Your task to perform on an android device: Go to display settings Image 0: 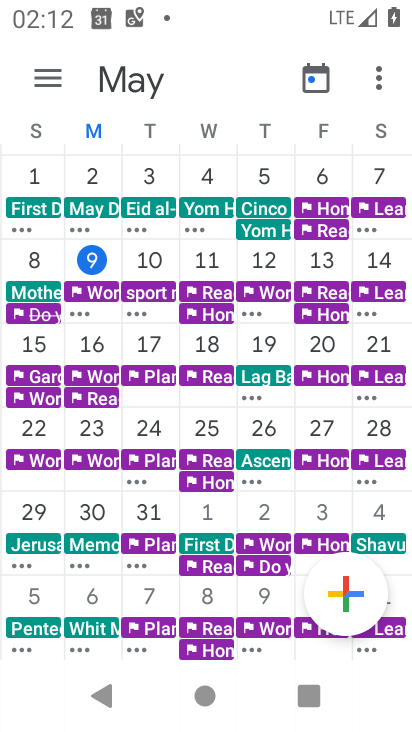
Step 0: press home button
Your task to perform on an android device: Go to display settings Image 1: 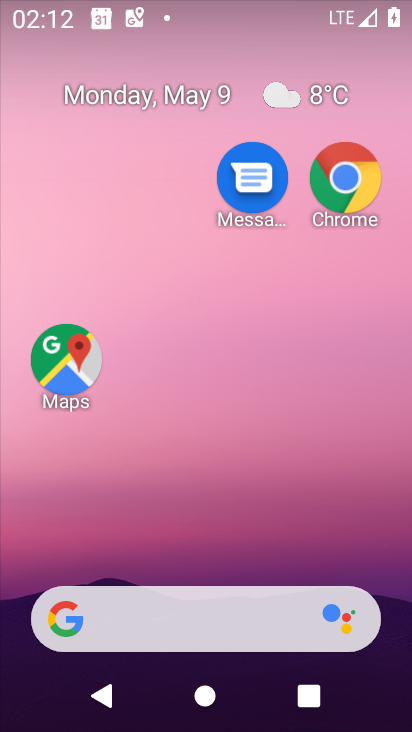
Step 1: drag from (232, 530) to (225, 70)
Your task to perform on an android device: Go to display settings Image 2: 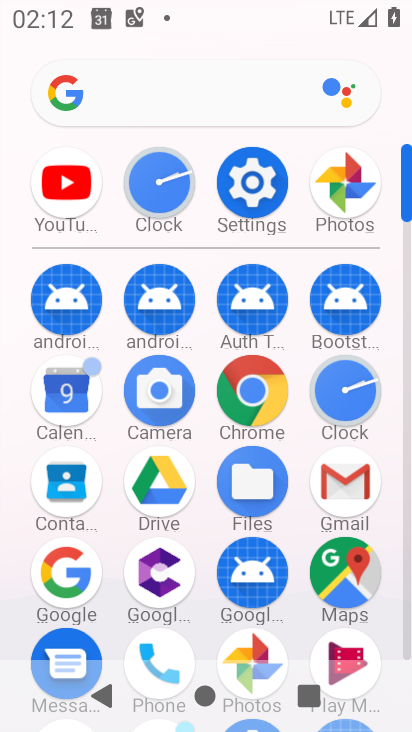
Step 2: click (273, 181)
Your task to perform on an android device: Go to display settings Image 3: 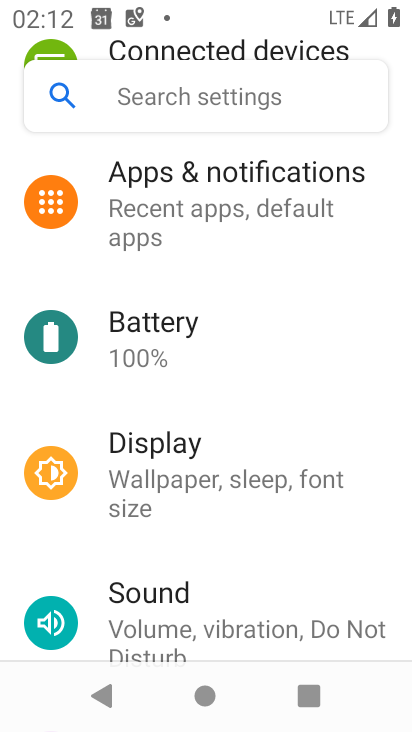
Step 3: click (179, 467)
Your task to perform on an android device: Go to display settings Image 4: 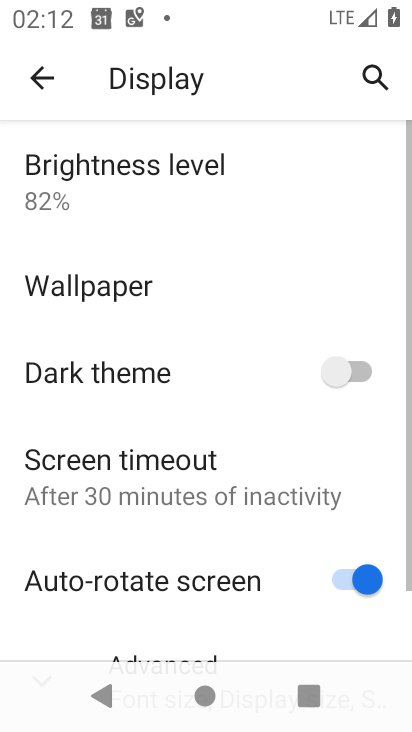
Step 4: task complete